Your task to perform on an android device: check the backup settings in the google photos Image 0: 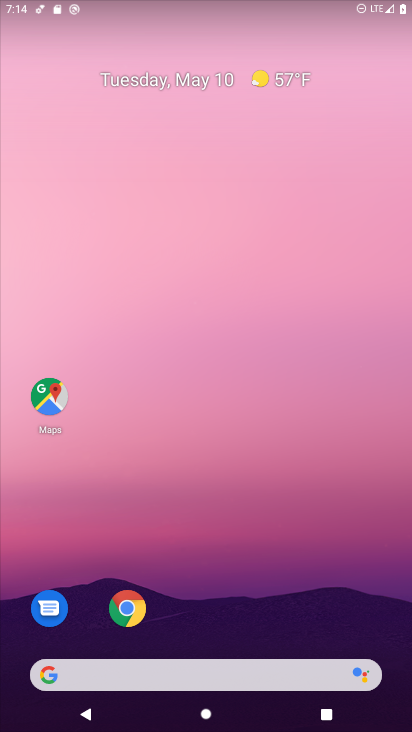
Step 0: drag from (297, 634) to (277, 41)
Your task to perform on an android device: check the backup settings in the google photos Image 1: 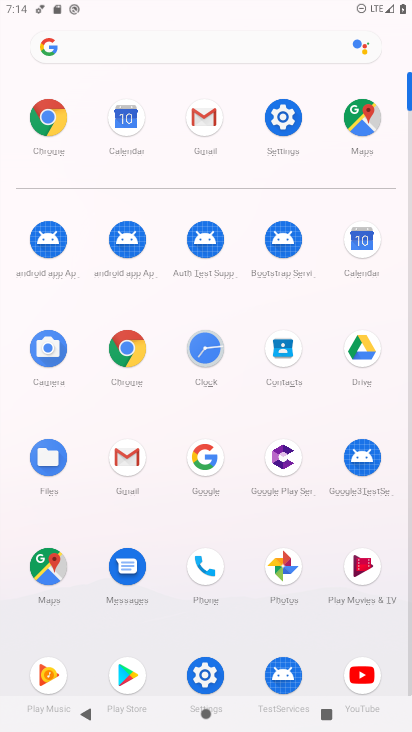
Step 1: click (293, 572)
Your task to perform on an android device: check the backup settings in the google photos Image 2: 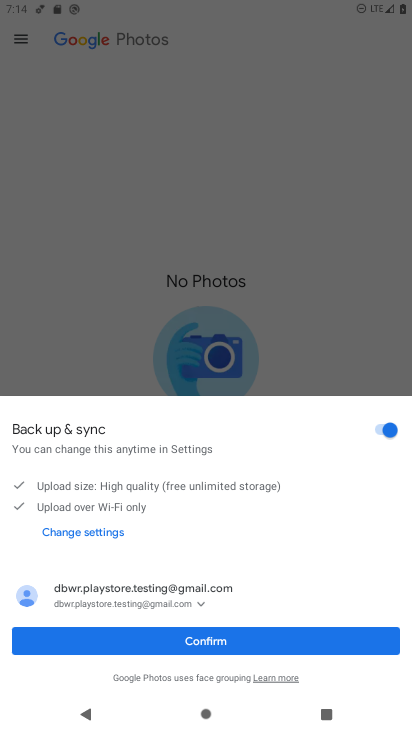
Step 2: click (196, 642)
Your task to perform on an android device: check the backup settings in the google photos Image 3: 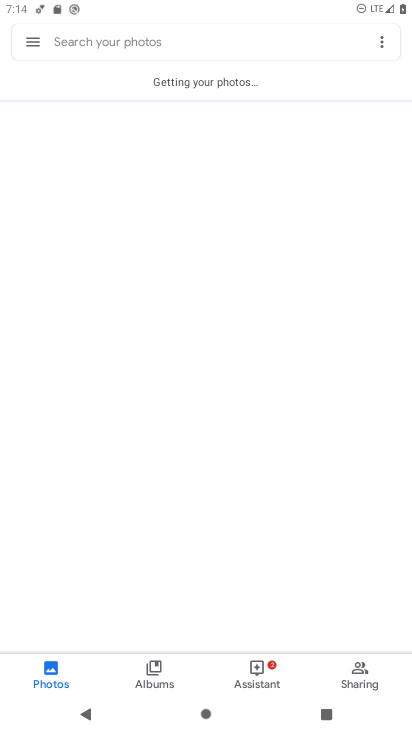
Step 3: click (33, 40)
Your task to perform on an android device: check the backup settings in the google photos Image 4: 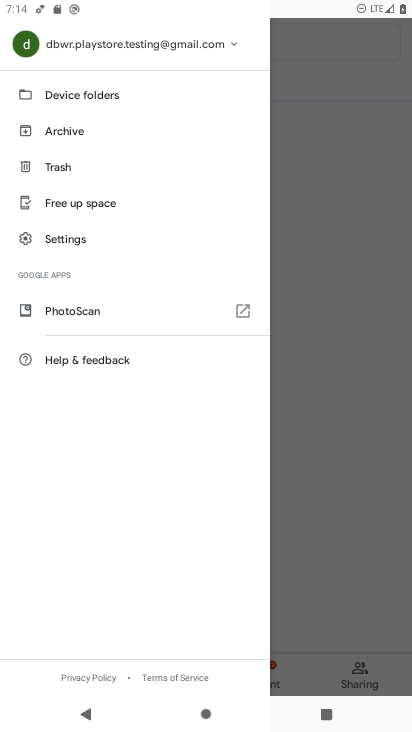
Step 4: click (86, 231)
Your task to perform on an android device: check the backup settings in the google photos Image 5: 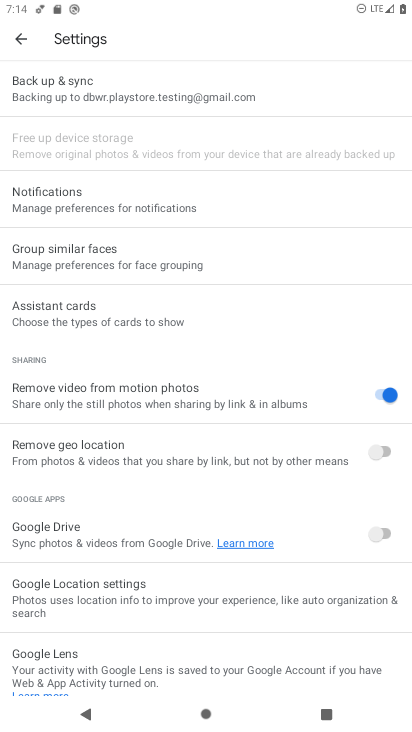
Step 5: click (130, 74)
Your task to perform on an android device: check the backup settings in the google photos Image 6: 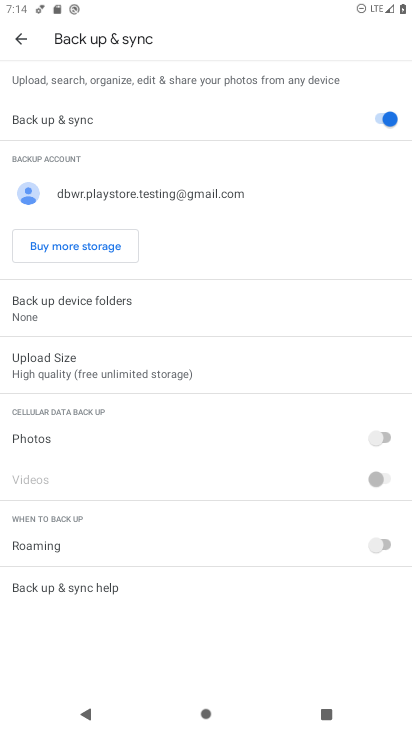
Step 6: task complete